Your task to perform on an android device: Search for a storage ottoman in the living room Image 0: 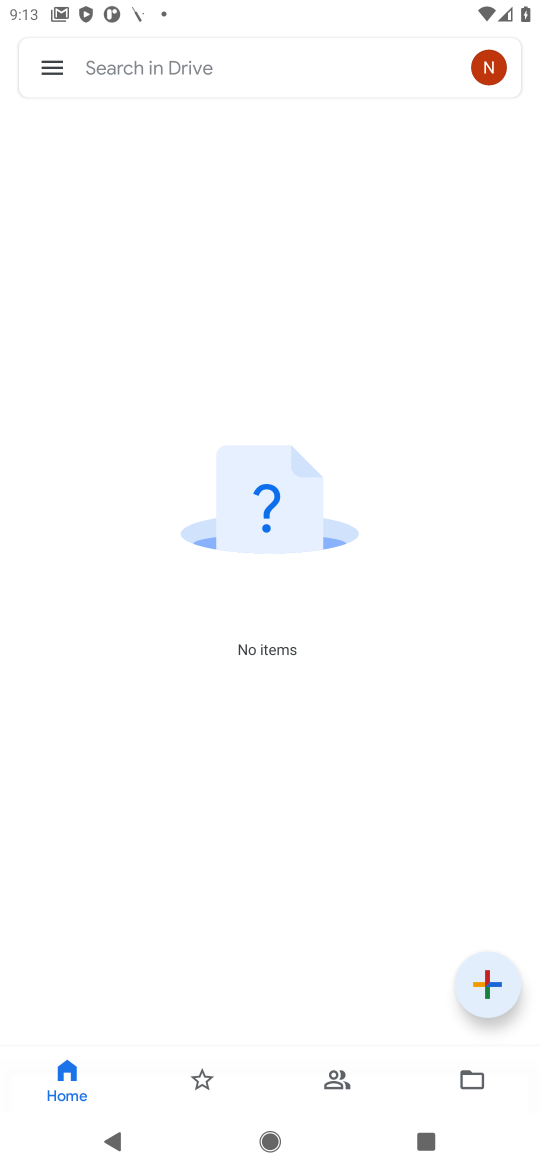
Step 0: press home button
Your task to perform on an android device: Search for a storage ottoman in the living room Image 1: 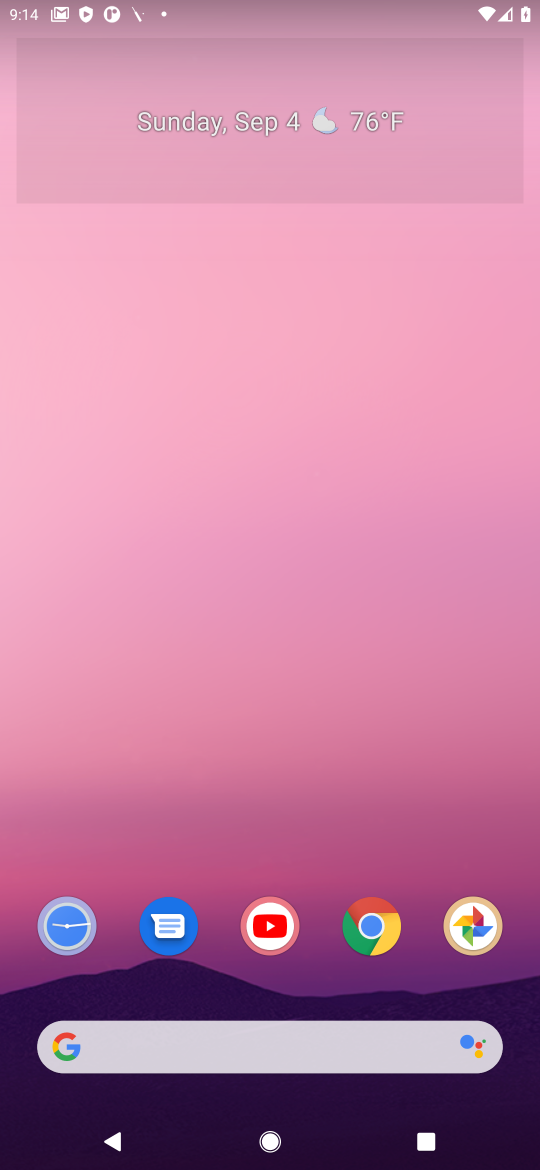
Step 1: click (325, 1024)
Your task to perform on an android device: Search for a storage ottoman in the living room Image 2: 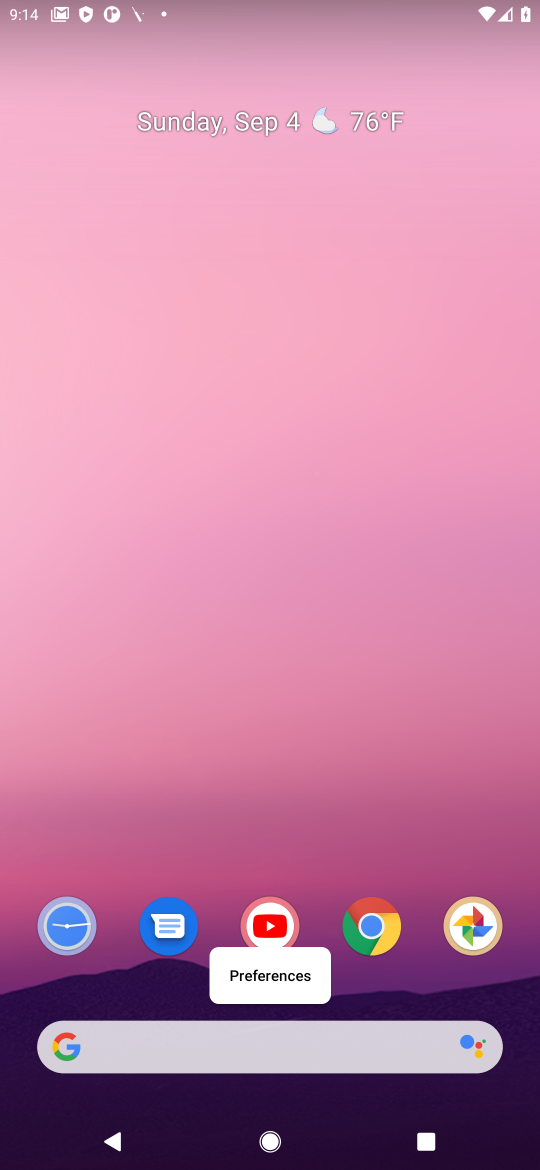
Step 2: click (124, 1032)
Your task to perform on an android device: Search for a storage ottoman in the living room Image 3: 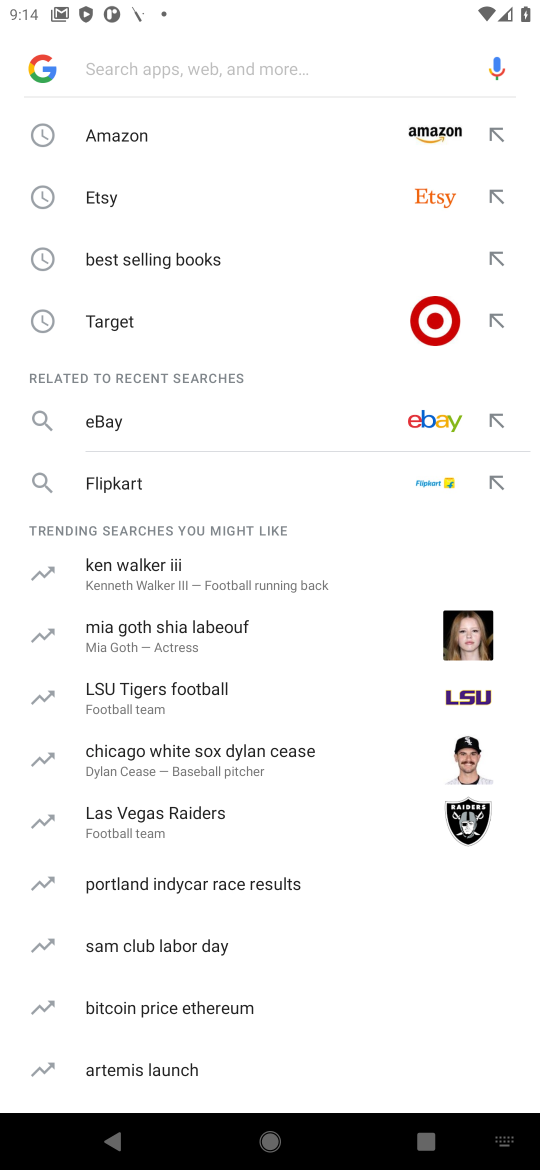
Step 3: type "storage ottoman in the living room"
Your task to perform on an android device: Search for a storage ottoman in the living room Image 4: 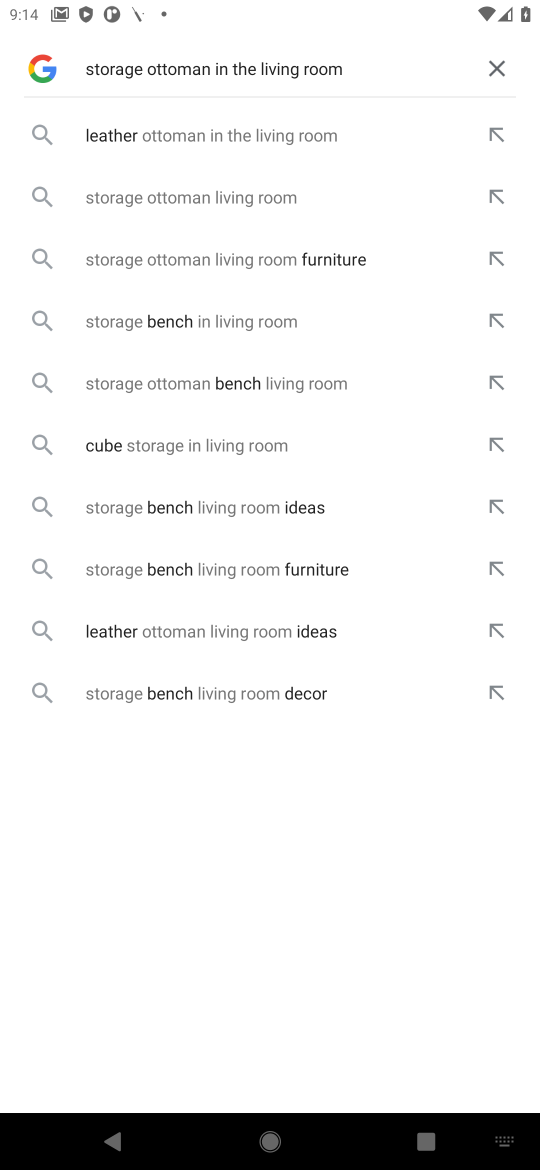
Step 4: click (224, 137)
Your task to perform on an android device: Search for a storage ottoman in the living room Image 5: 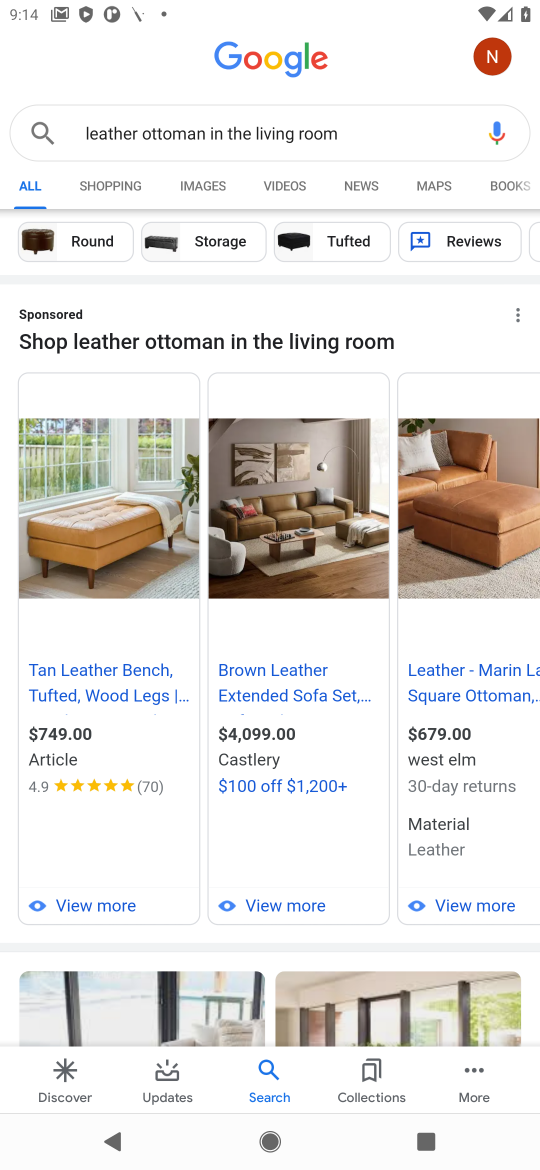
Step 5: task complete